Your task to perform on an android device: Check the weather Image 0: 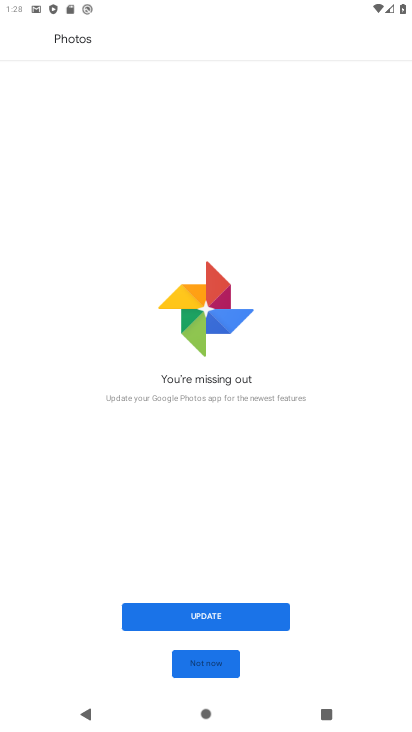
Step 0: press home button
Your task to perform on an android device: Check the weather Image 1: 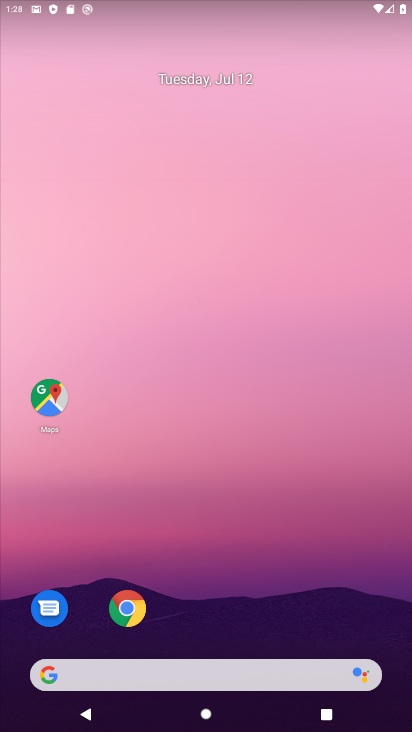
Step 1: drag from (244, 634) to (242, 163)
Your task to perform on an android device: Check the weather Image 2: 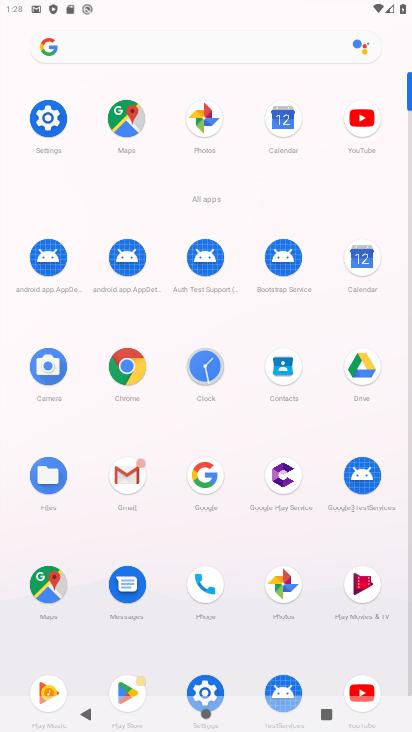
Step 2: click (132, 385)
Your task to perform on an android device: Check the weather Image 3: 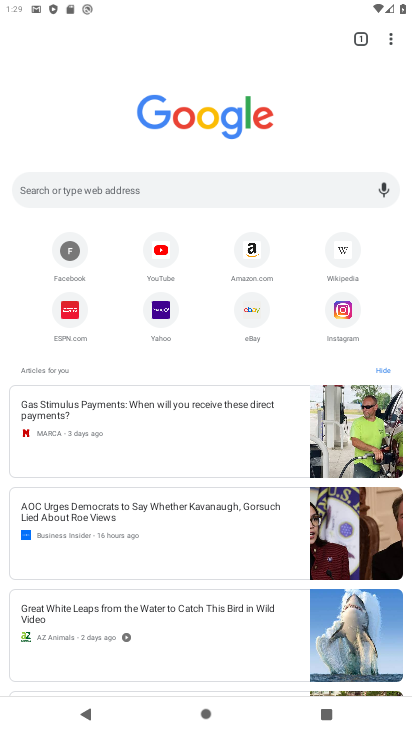
Step 3: click (197, 190)
Your task to perform on an android device: Check the weather Image 4: 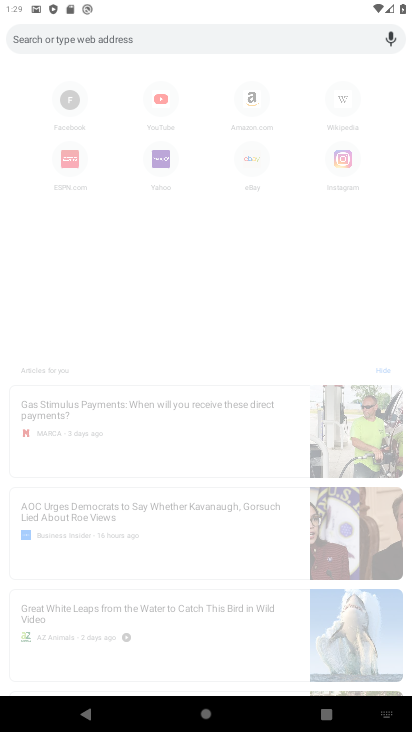
Step 4: type "Check the weather"
Your task to perform on an android device: Check the weather Image 5: 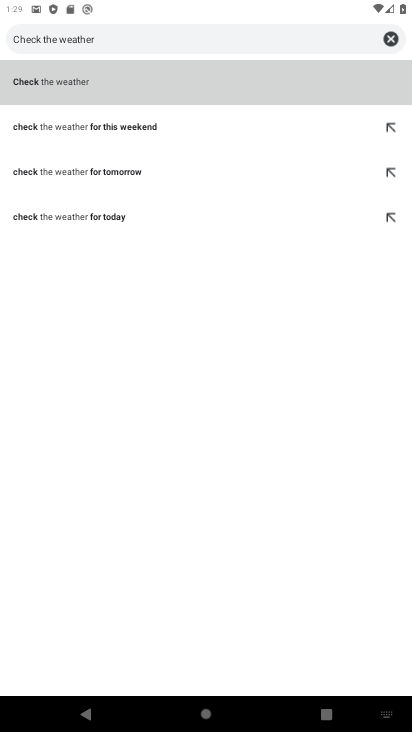
Step 5: click (127, 90)
Your task to perform on an android device: Check the weather Image 6: 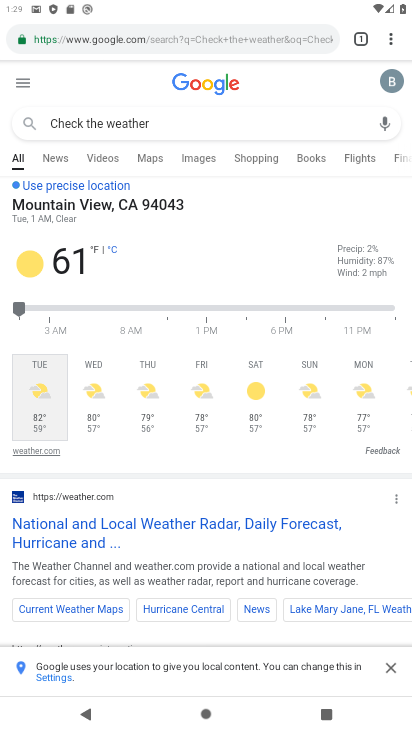
Step 6: task complete